Your task to perform on an android device: What's the weather going to be tomorrow? Image 0: 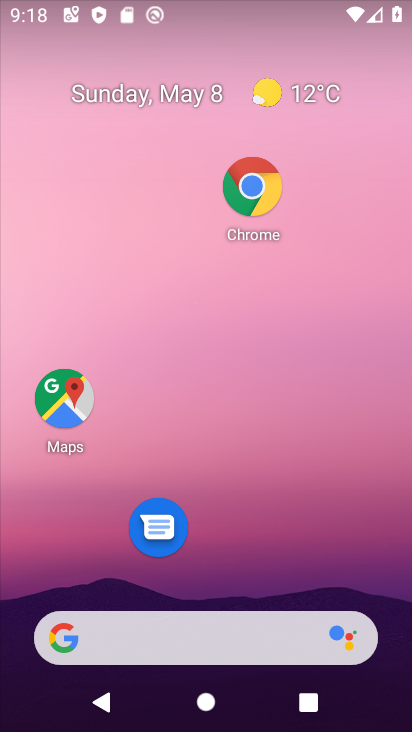
Step 0: drag from (291, 559) to (343, 188)
Your task to perform on an android device: What's the weather going to be tomorrow? Image 1: 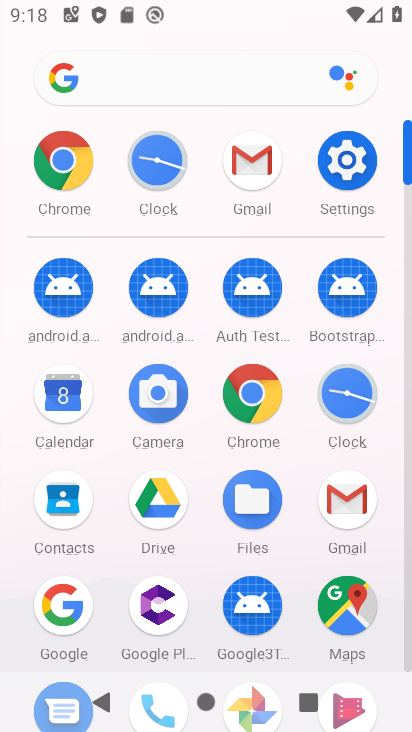
Step 1: click (240, 392)
Your task to perform on an android device: What's the weather going to be tomorrow? Image 2: 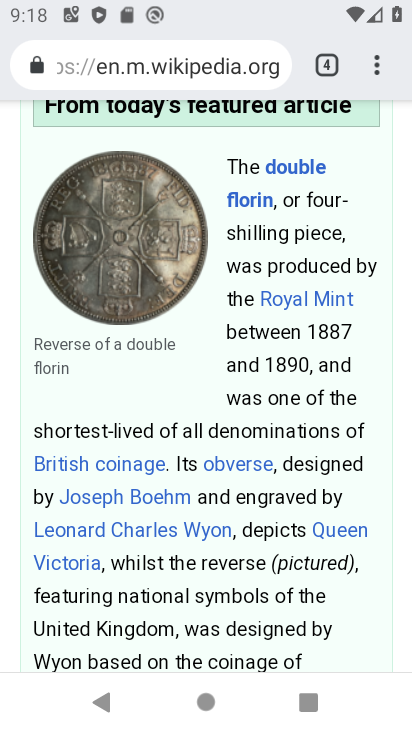
Step 2: click (363, 67)
Your task to perform on an android device: What's the weather going to be tomorrow? Image 3: 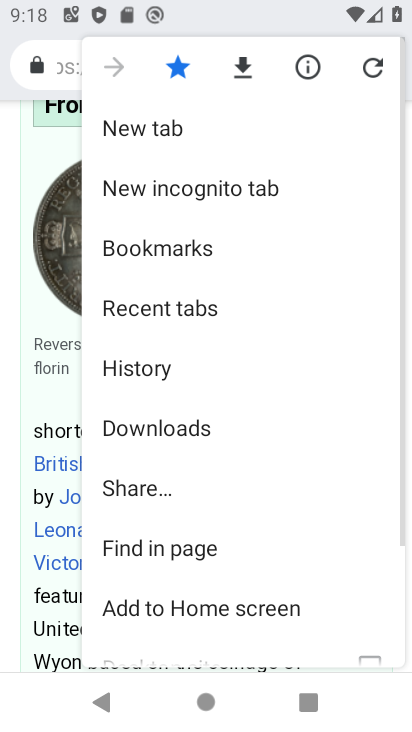
Step 3: click (191, 123)
Your task to perform on an android device: What's the weather going to be tomorrow? Image 4: 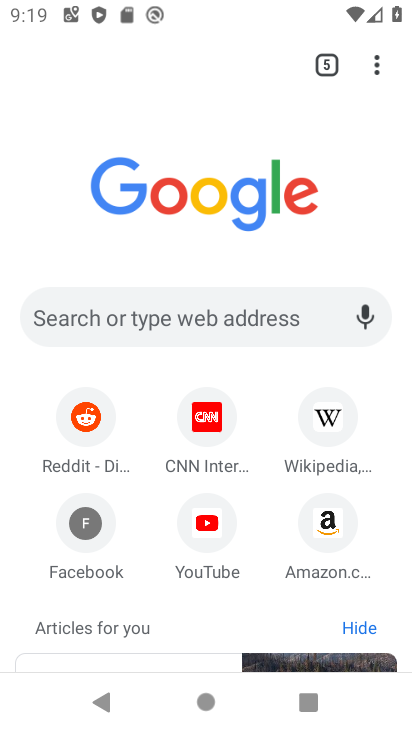
Step 4: click (260, 305)
Your task to perform on an android device: What's the weather going to be tomorrow? Image 5: 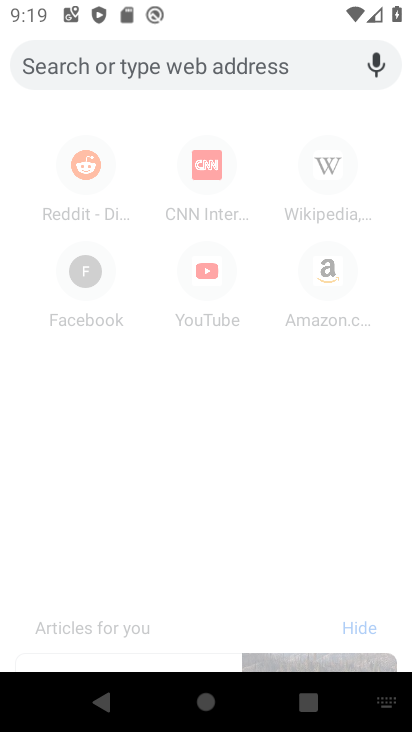
Step 5: type "What's the weather going to be tomorrow?"
Your task to perform on an android device: What's the weather going to be tomorrow? Image 6: 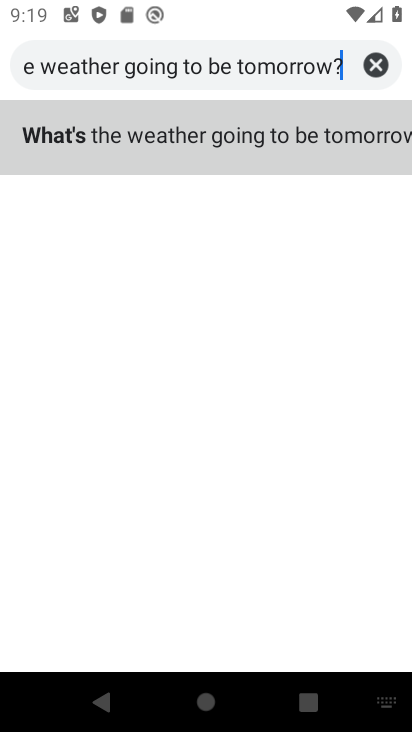
Step 6: click (241, 144)
Your task to perform on an android device: What's the weather going to be tomorrow? Image 7: 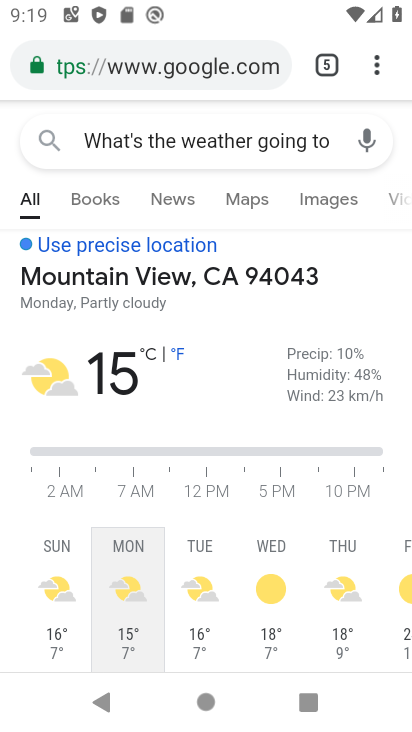
Step 7: task complete